Your task to perform on an android device: See recent photos Image 0: 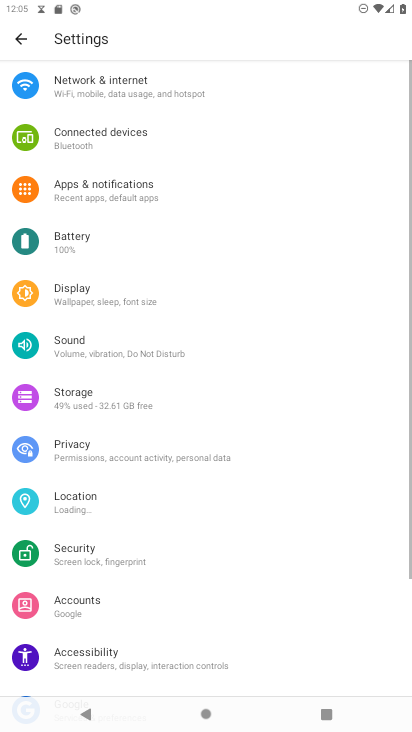
Step 0: press home button
Your task to perform on an android device: See recent photos Image 1: 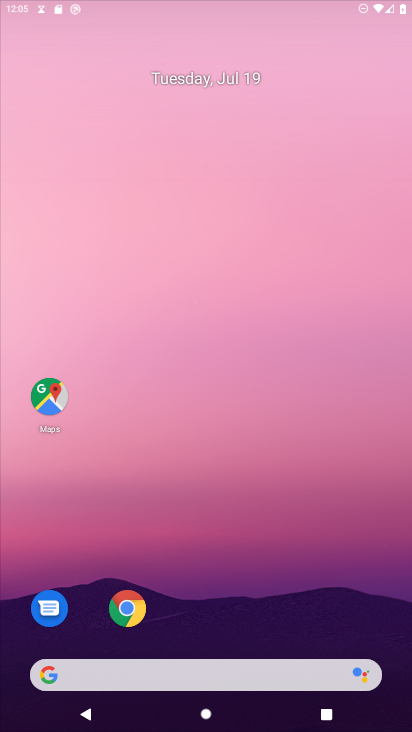
Step 1: drag from (150, 683) to (195, 51)
Your task to perform on an android device: See recent photos Image 2: 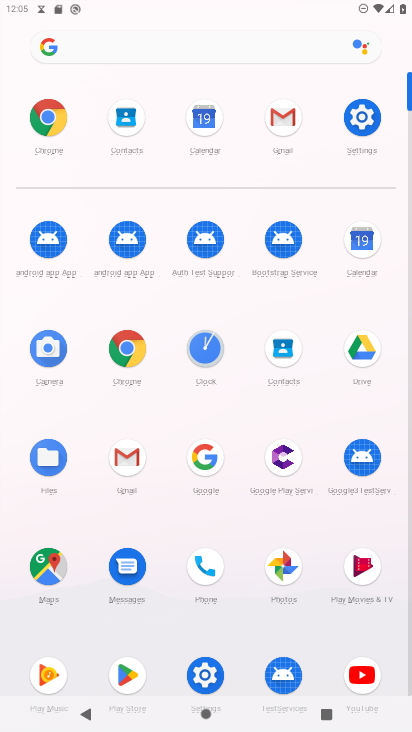
Step 2: click (275, 572)
Your task to perform on an android device: See recent photos Image 3: 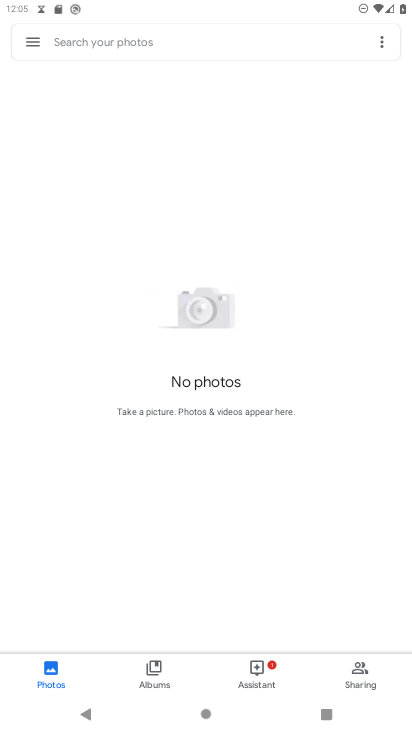
Step 3: task complete